Your task to perform on an android device: change the clock display to analog Image 0: 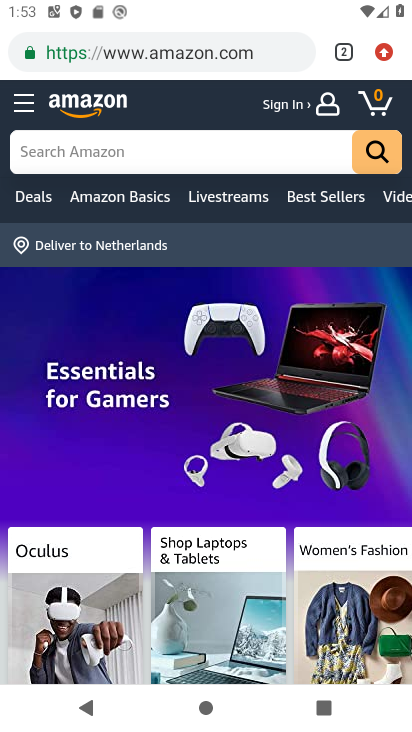
Step 0: press home button
Your task to perform on an android device: change the clock display to analog Image 1: 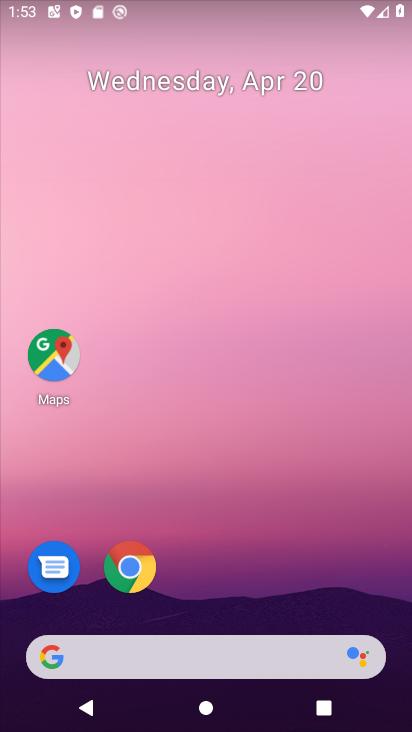
Step 1: drag from (237, 574) to (314, 153)
Your task to perform on an android device: change the clock display to analog Image 2: 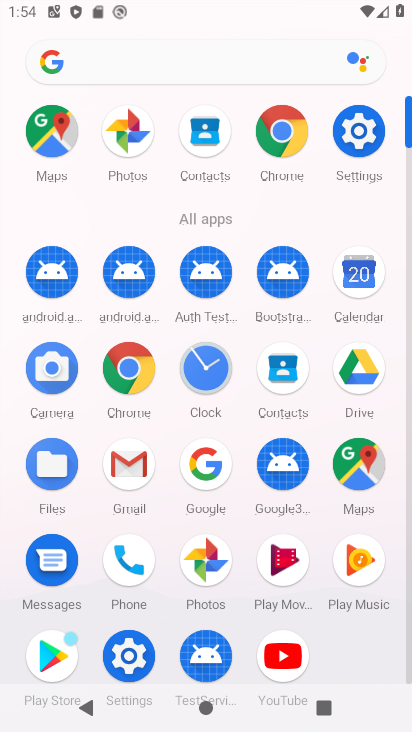
Step 2: click (203, 381)
Your task to perform on an android device: change the clock display to analog Image 3: 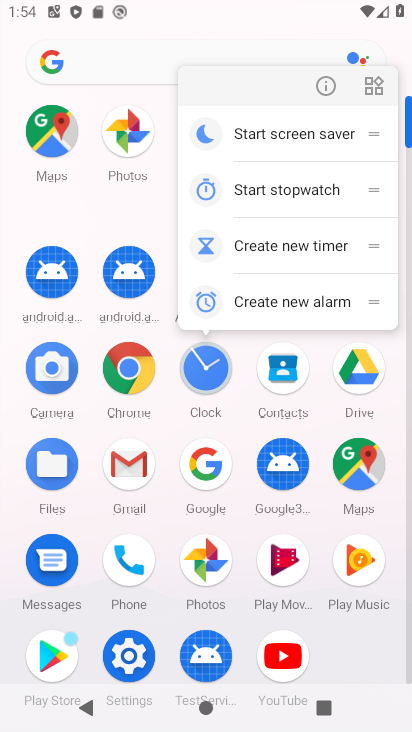
Step 3: click (208, 361)
Your task to perform on an android device: change the clock display to analog Image 4: 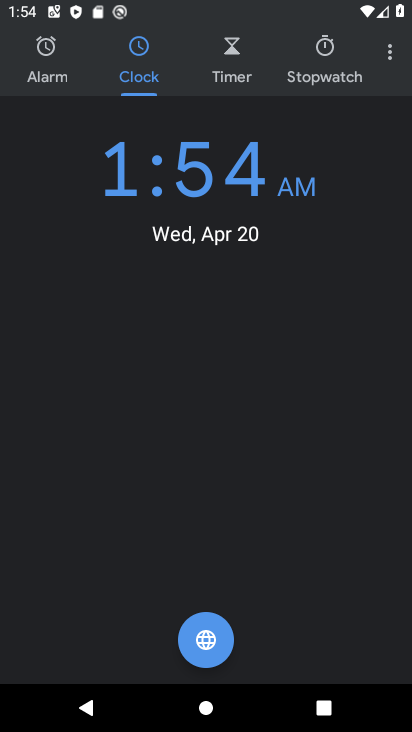
Step 4: click (385, 57)
Your task to perform on an android device: change the clock display to analog Image 5: 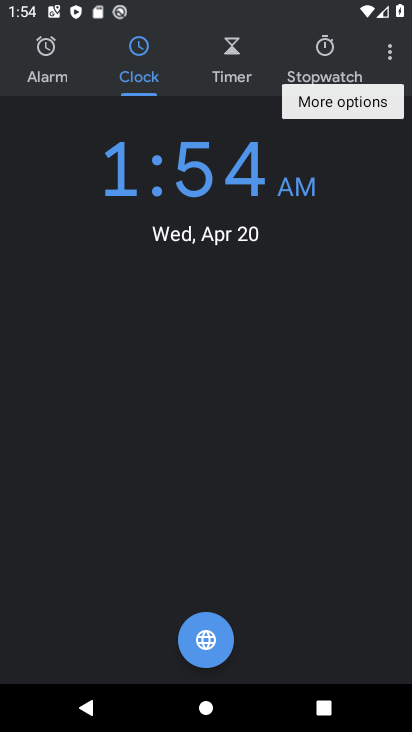
Step 5: click (391, 60)
Your task to perform on an android device: change the clock display to analog Image 6: 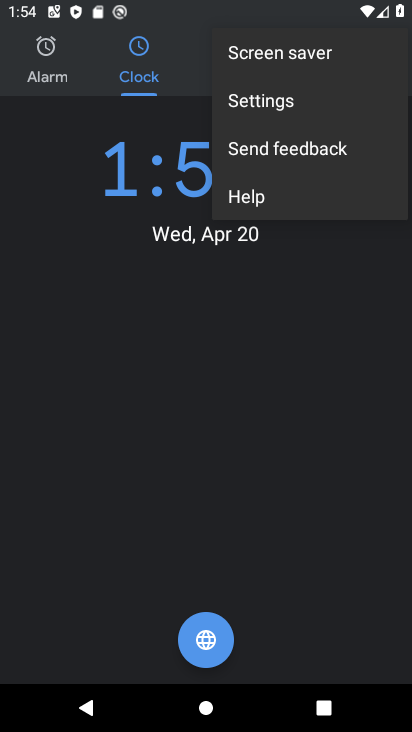
Step 6: click (330, 92)
Your task to perform on an android device: change the clock display to analog Image 7: 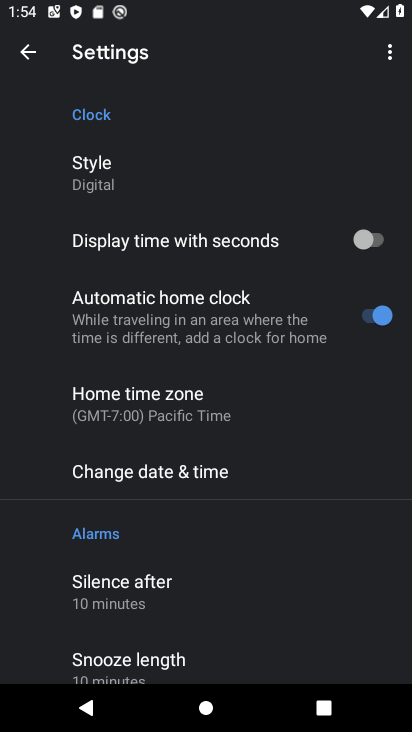
Step 7: click (217, 181)
Your task to perform on an android device: change the clock display to analog Image 8: 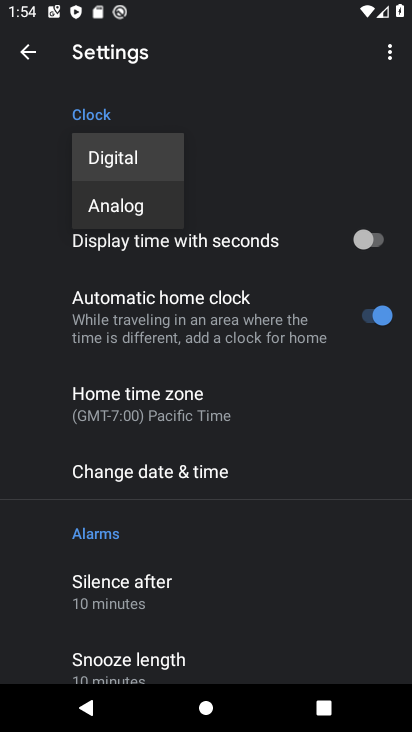
Step 8: click (129, 197)
Your task to perform on an android device: change the clock display to analog Image 9: 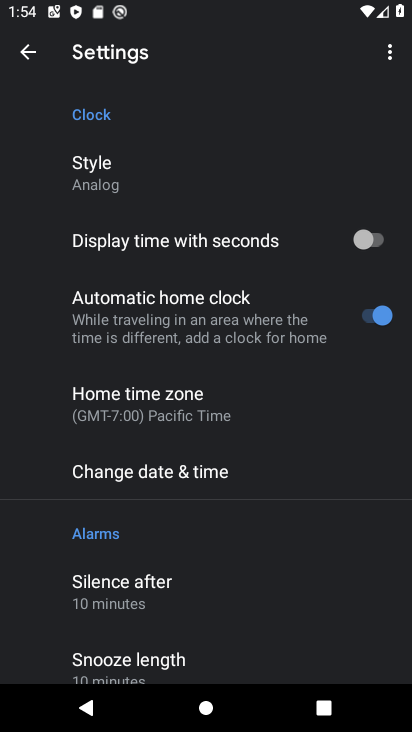
Step 9: task complete